Your task to perform on an android device: Set the phone to "Do not disturb". Image 0: 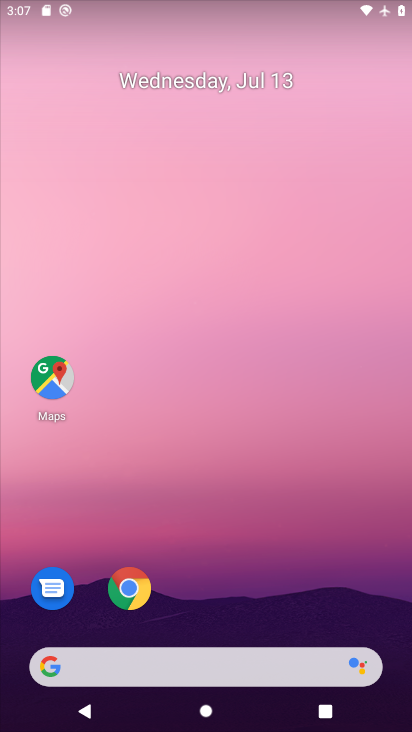
Step 0: drag from (222, 8) to (220, 613)
Your task to perform on an android device: Set the phone to "Do not disturb". Image 1: 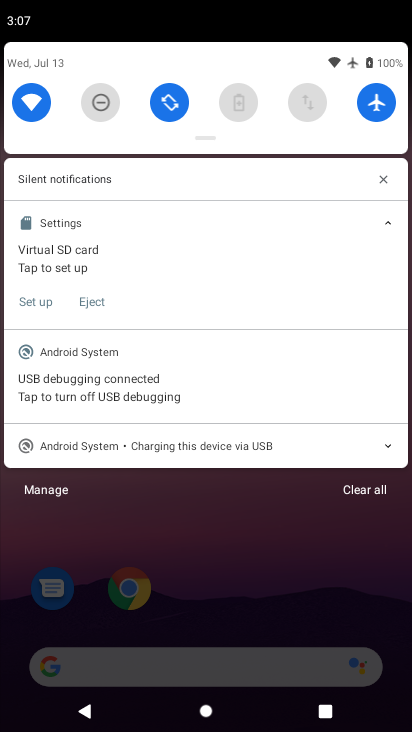
Step 1: click (104, 97)
Your task to perform on an android device: Set the phone to "Do not disturb". Image 2: 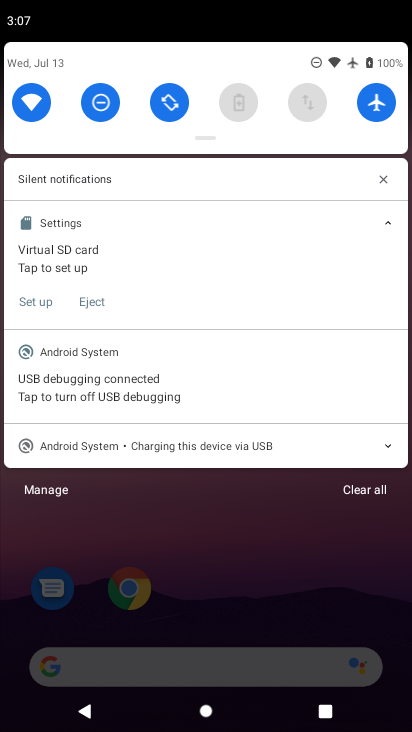
Step 2: task complete